Your task to perform on an android device: Open the web browser Image 0: 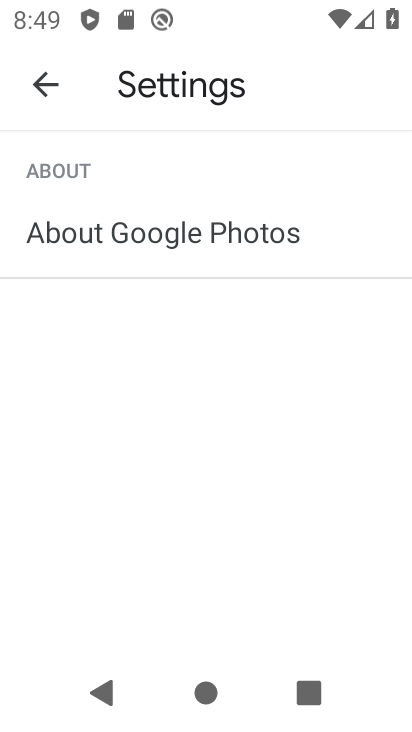
Step 0: press home button
Your task to perform on an android device: Open the web browser Image 1: 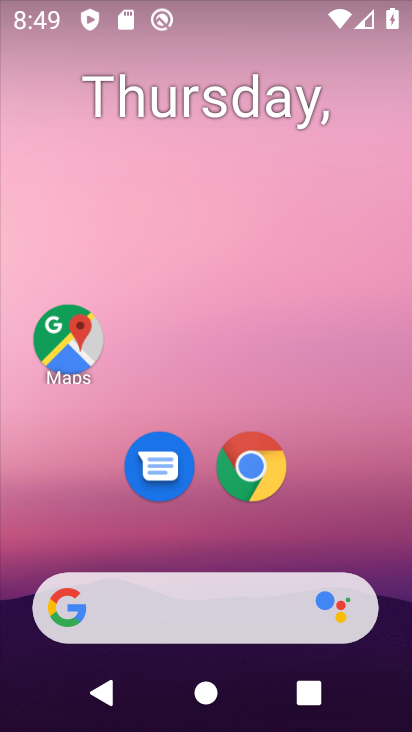
Step 1: click (256, 470)
Your task to perform on an android device: Open the web browser Image 2: 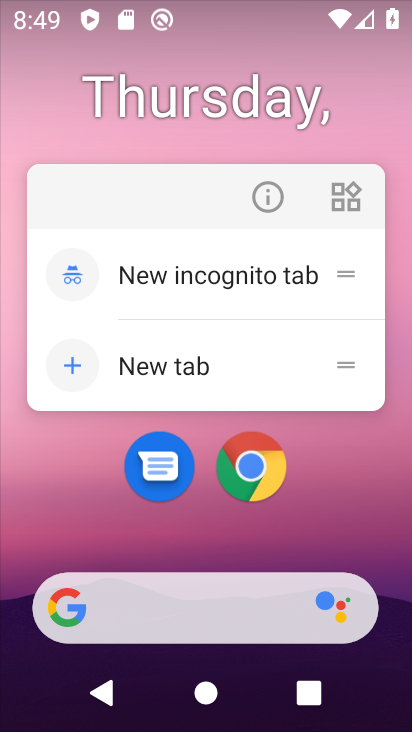
Step 2: click (259, 483)
Your task to perform on an android device: Open the web browser Image 3: 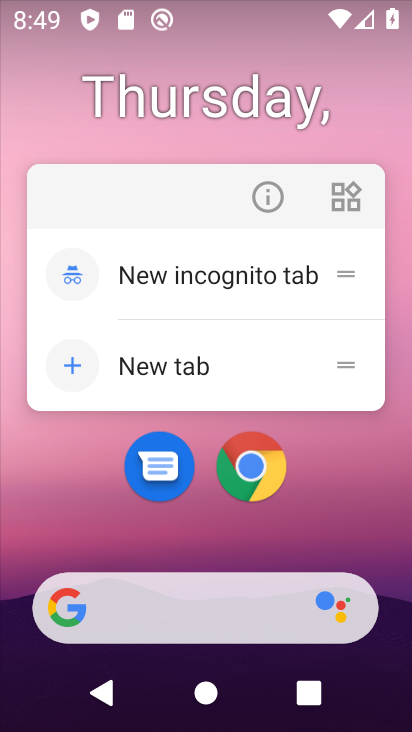
Step 3: click (247, 490)
Your task to perform on an android device: Open the web browser Image 4: 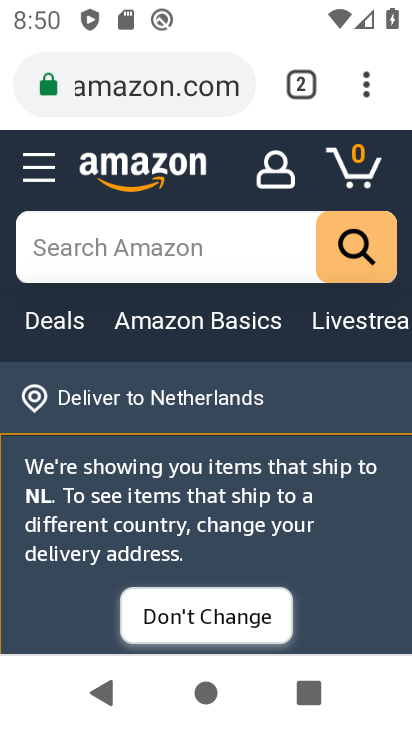
Step 4: task complete